Your task to perform on an android device: uninstall "Gboard" Image 0: 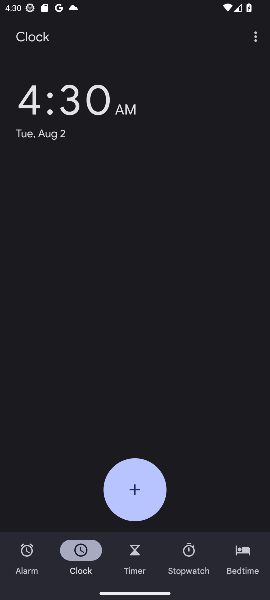
Step 0: press home button
Your task to perform on an android device: uninstall "Gboard" Image 1: 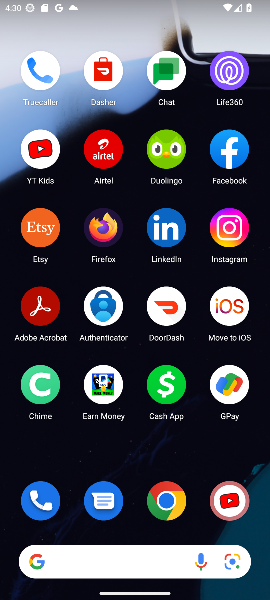
Step 1: press home button
Your task to perform on an android device: uninstall "Gboard" Image 2: 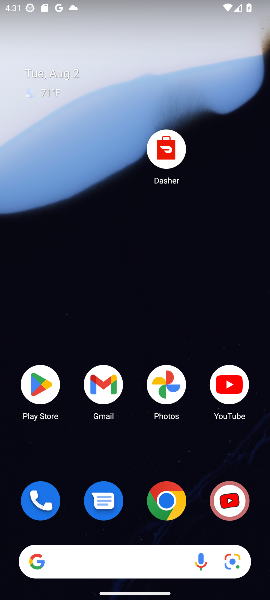
Step 2: click (43, 382)
Your task to perform on an android device: uninstall "Gboard" Image 3: 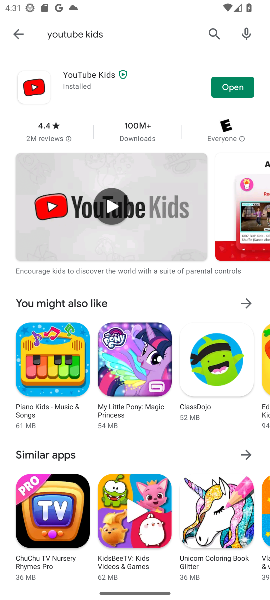
Step 3: click (209, 34)
Your task to perform on an android device: uninstall "Gboard" Image 4: 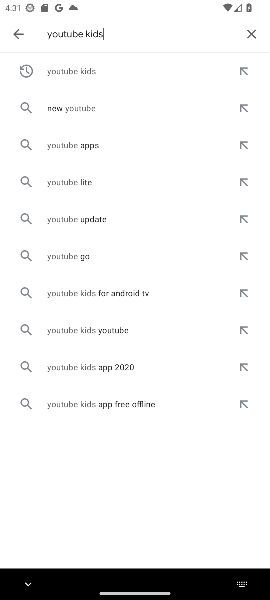
Step 4: click (250, 35)
Your task to perform on an android device: uninstall "Gboard" Image 5: 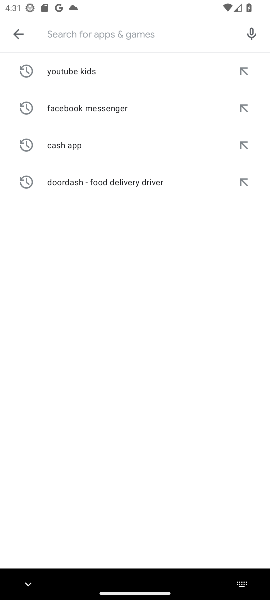
Step 5: type "Gboard"
Your task to perform on an android device: uninstall "Gboard" Image 6: 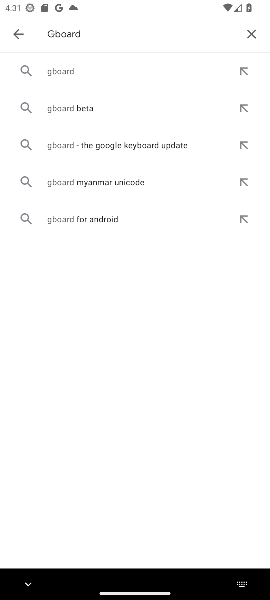
Step 6: click (54, 77)
Your task to perform on an android device: uninstall "Gboard" Image 7: 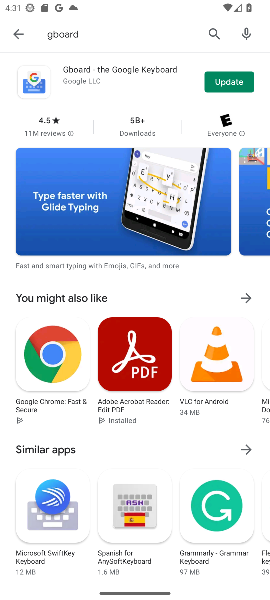
Step 7: click (73, 80)
Your task to perform on an android device: uninstall "Gboard" Image 8: 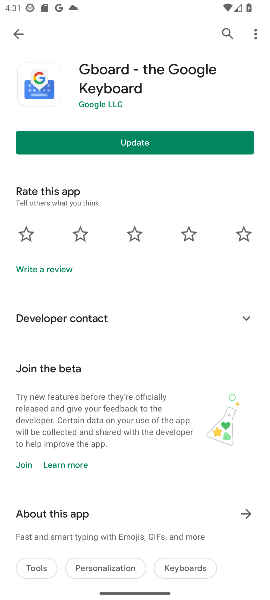
Step 8: task complete